Your task to perform on an android device: allow cookies in the chrome app Image 0: 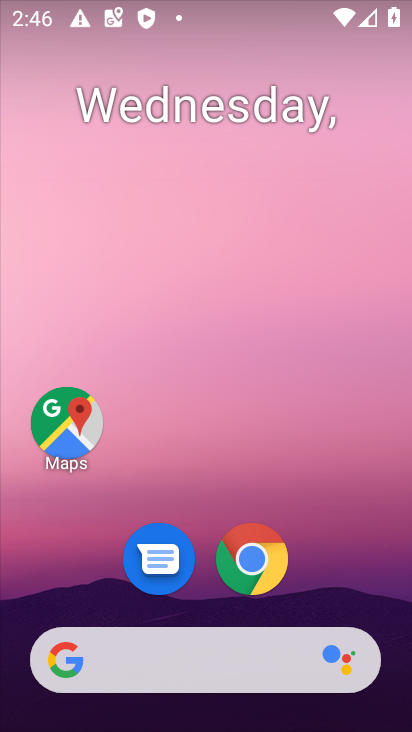
Step 0: click (251, 555)
Your task to perform on an android device: allow cookies in the chrome app Image 1: 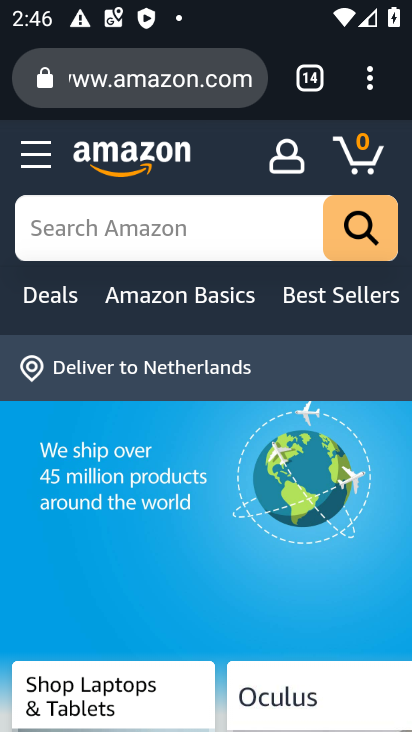
Step 1: click (373, 92)
Your task to perform on an android device: allow cookies in the chrome app Image 2: 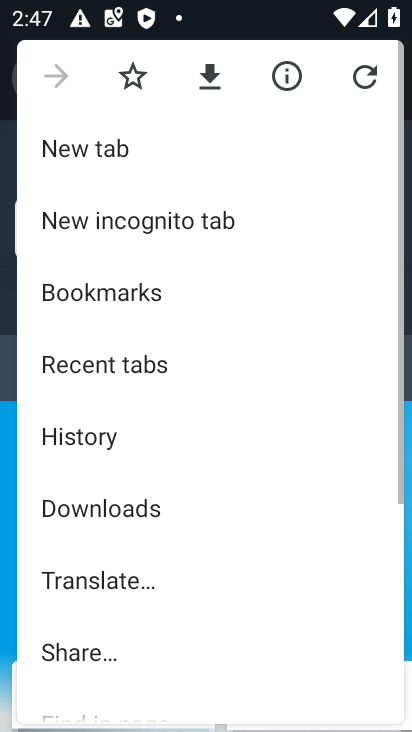
Step 2: drag from (128, 648) to (141, 268)
Your task to perform on an android device: allow cookies in the chrome app Image 3: 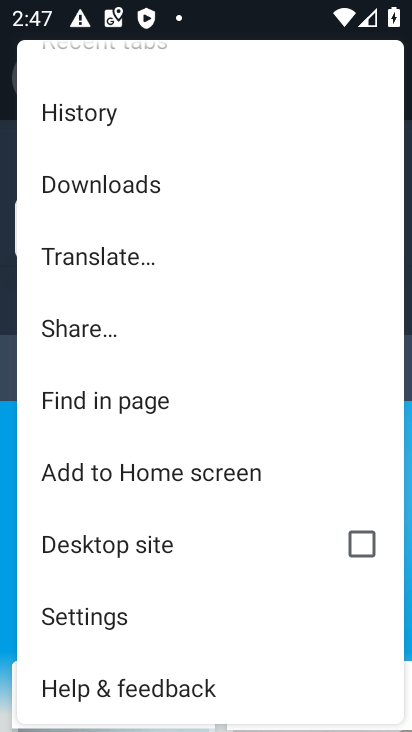
Step 3: click (92, 620)
Your task to perform on an android device: allow cookies in the chrome app Image 4: 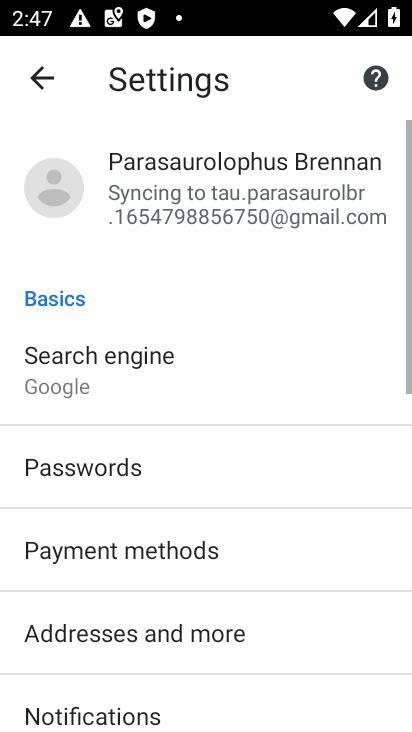
Step 4: drag from (156, 663) to (159, 260)
Your task to perform on an android device: allow cookies in the chrome app Image 5: 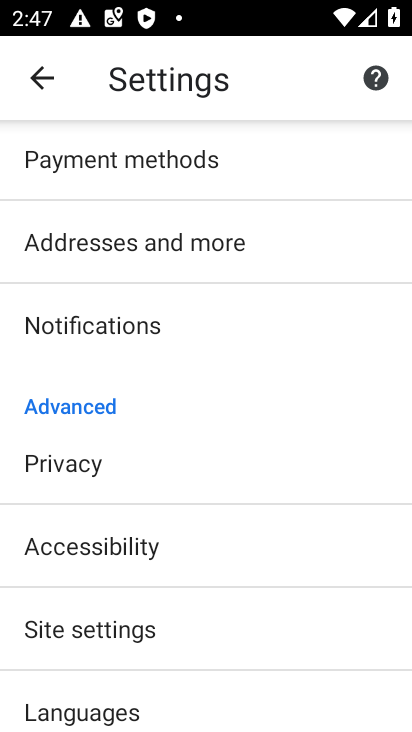
Step 5: click (110, 628)
Your task to perform on an android device: allow cookies in the chrome app Image 6: 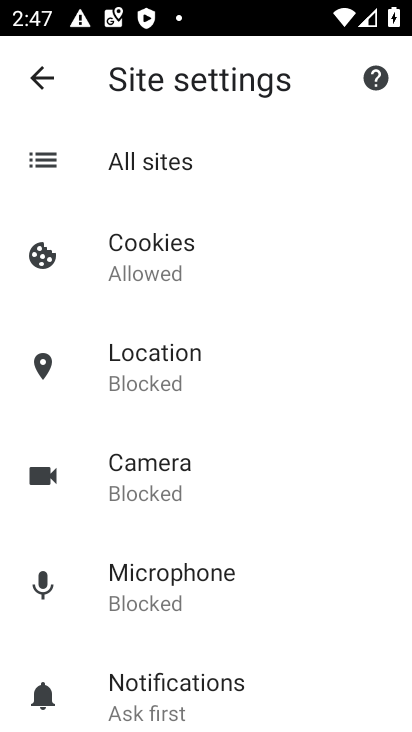
Step 6: click (159, 246)
Your task to perform on an android device: allow cookies in the chrome app Image 7: 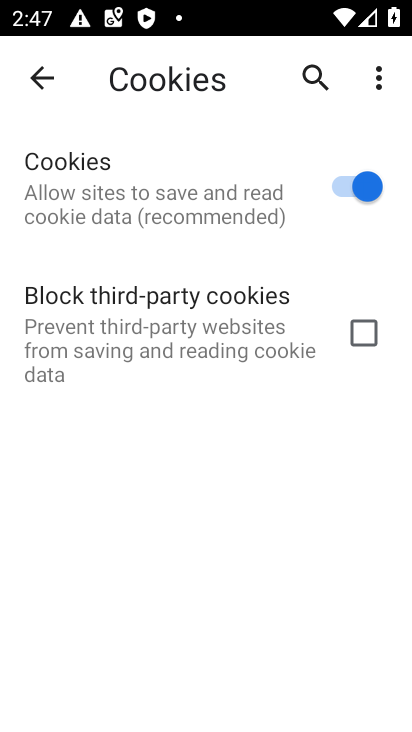
Step 7: task complete